Your task to perform on an android device: Open Google Maps Image 0: 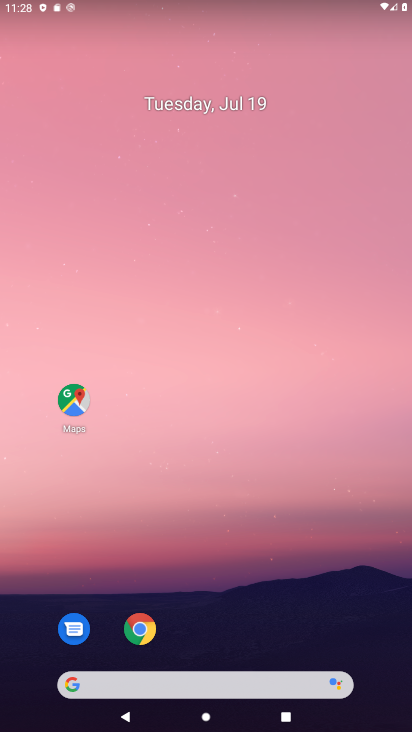
Step 0: drag from (351, 635) to (411, 18)
Your task to perform on an android device: Open Google Maps Image 1: 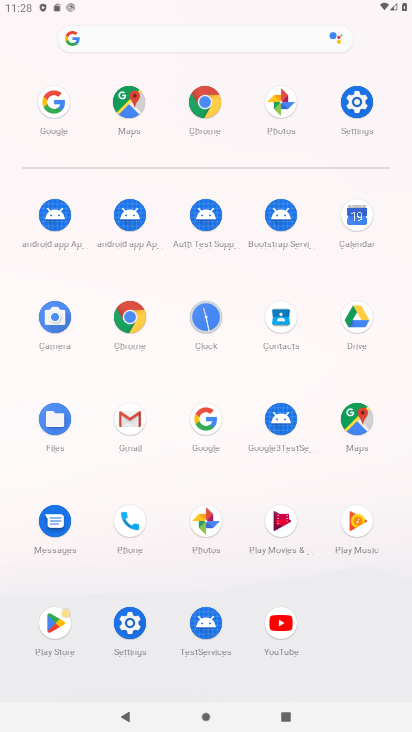
Step 1: click (358, 417)
Your task to perform on an android device: Open Google Maps Image 2: 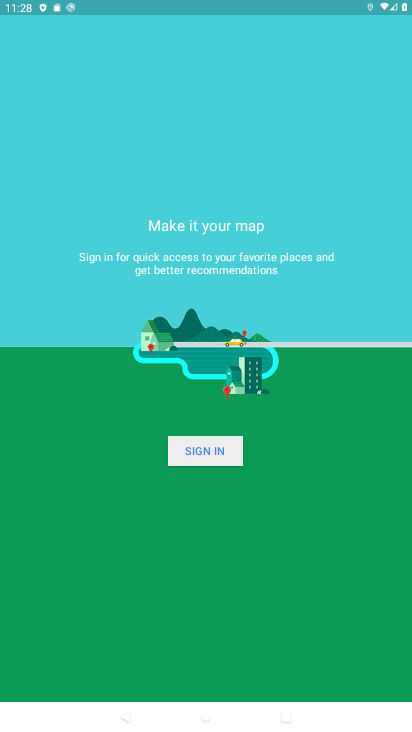
Step 2: task complete